Your task to perform on an android device: Open Wikipedia Image 0: 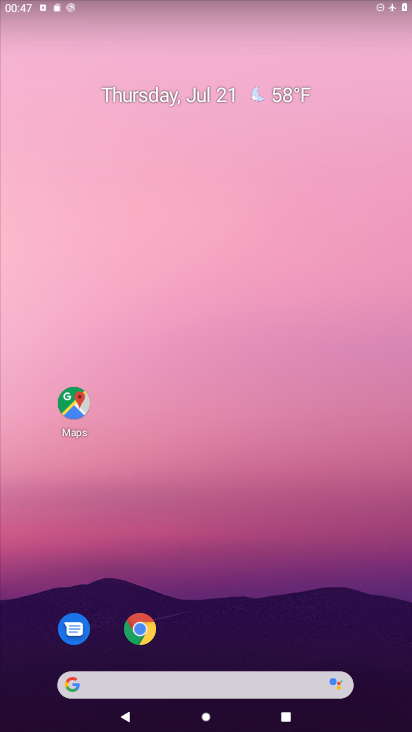
Step 0: click (149, 641)
Your task to perform on an android device: Open Wikipedia Image 1: 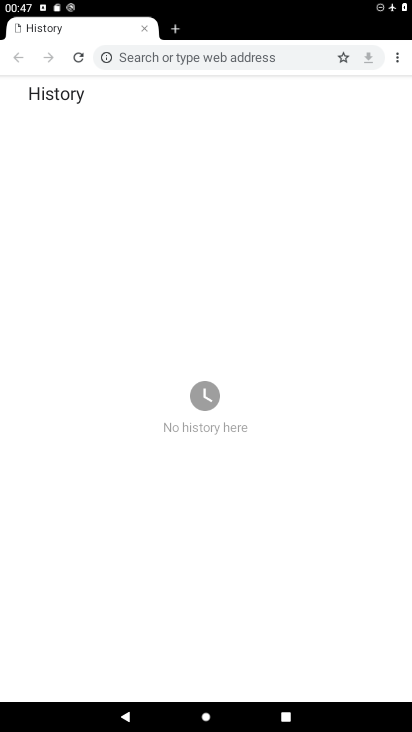
Step 1: click (169, 24)
Your task to perform on an android device: Open Wikipedia Image 2: 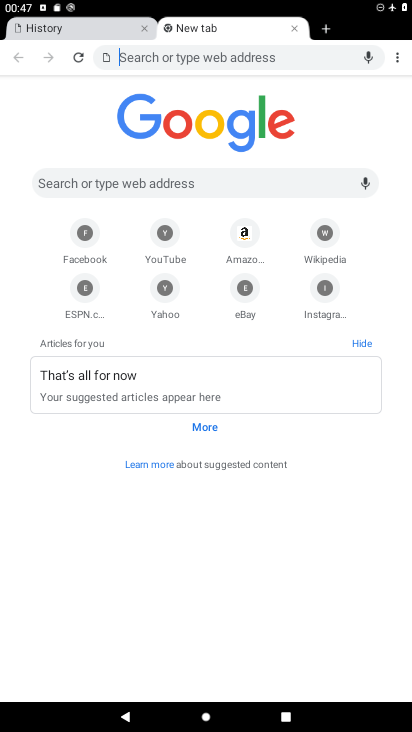
Step 2: click (315, 246)
Your task to perform on an android device: Open Wikipedia Image 3: 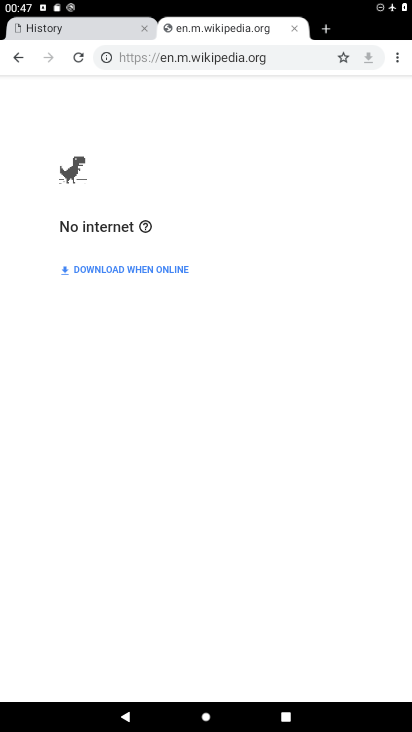
Step 3: task complete